Your task to perform on an android device: open a bookmark in the chrome app Image 0: 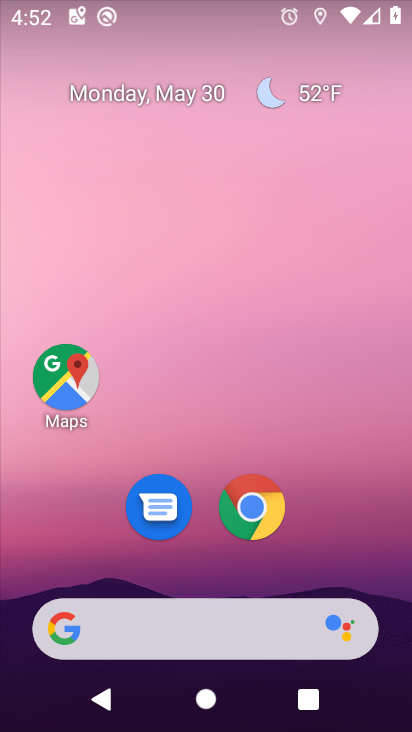
Step 0: click (257, 509)
Your task to perform on an android device: open a bookmark in the chrome app Image 1: 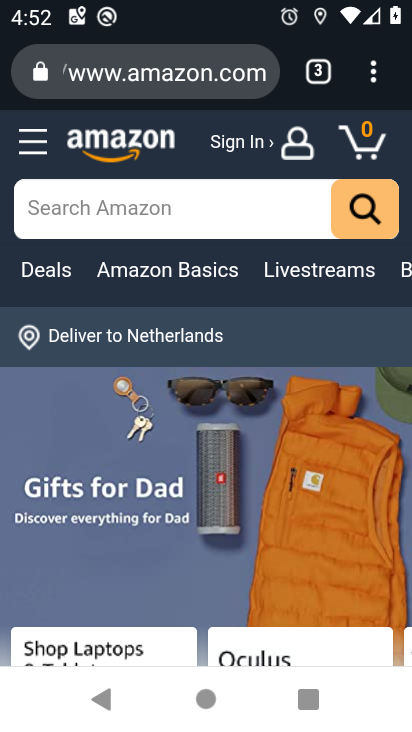
Step 1: task complete